Your task to perform on an android device: turn off improve location accuracy Image 0: 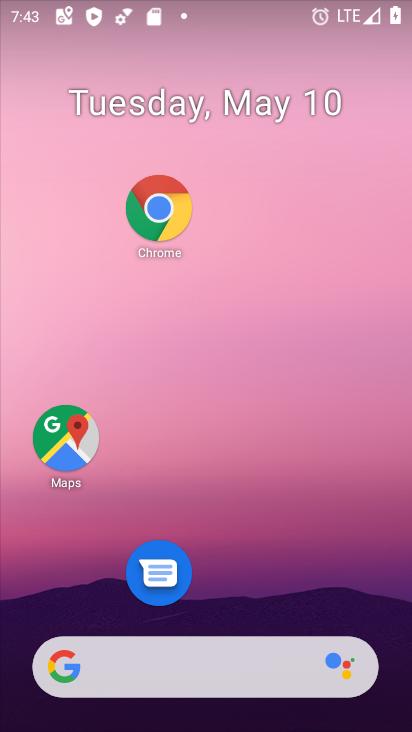
Step 0: drag from (304, 698) to (372, 145)
Your task to perform on an android device: turn off improve location accuracy Image 1: 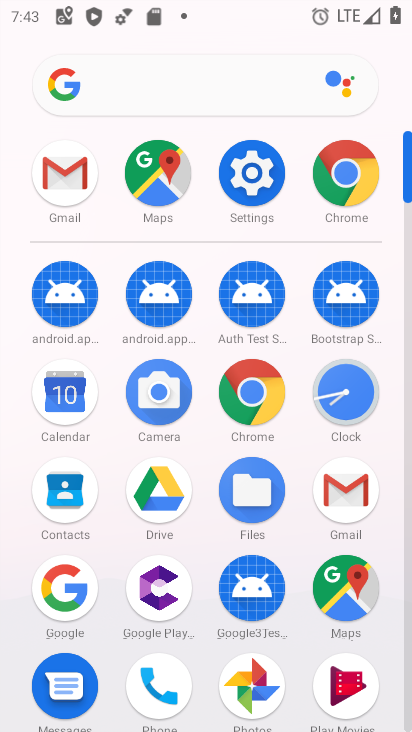
Step 1: click (240, 192)
Your task to perform on an android device: turn off improve location accuracy Image 2: 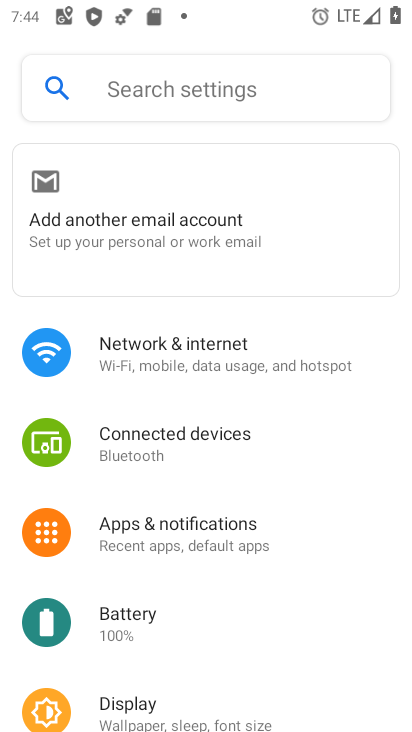
Step 2: click (223, 93)
Your task to perform on an android device: turn off improve location accuracy Image 3: 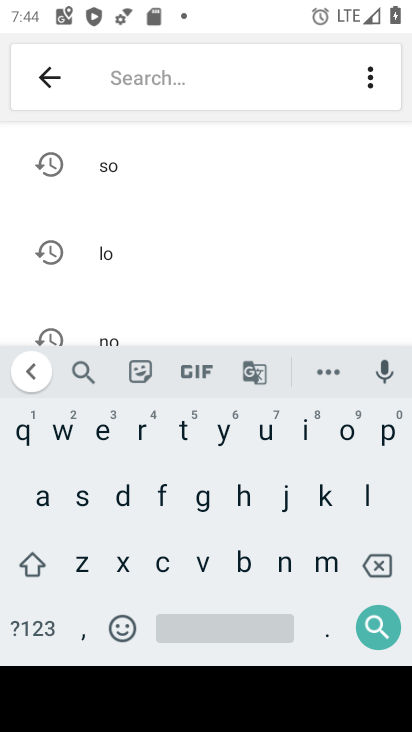
Step 3: click (112, 257)
Your task to perform on an android device: turn off improve location accuracy Image 4: 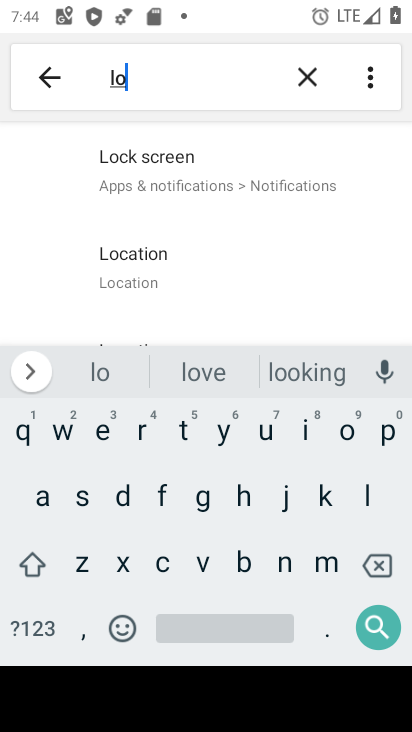
Step 4: click (123, 266)
Your task to perform on an android device: turn off improve location accuracy Image 5: 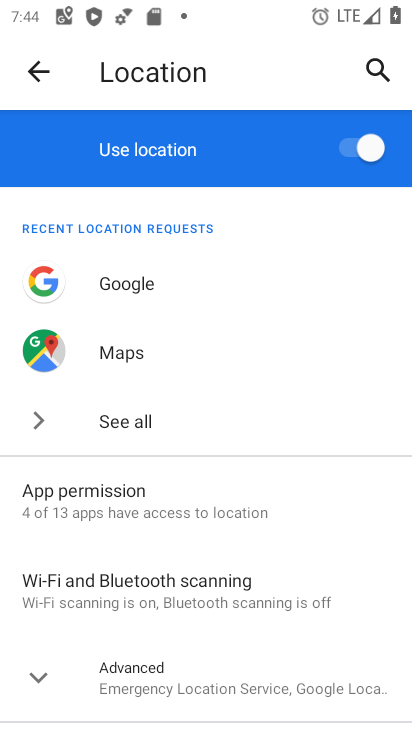
Step 5: click (41, 672)
Your task to perform on an android device: turn off improve location accuracy Image 6: 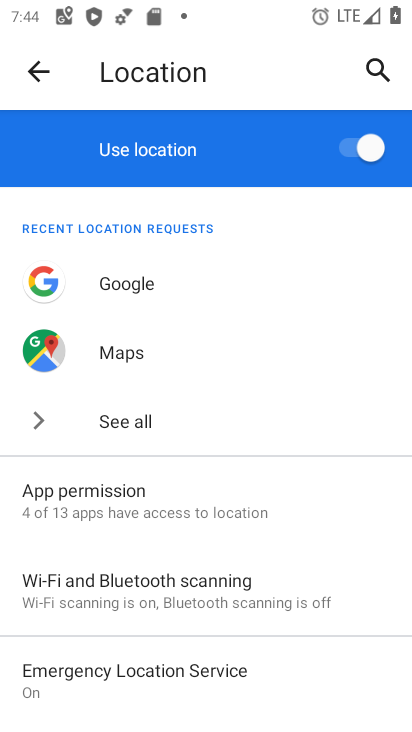
Step 6: drag from (152, 633) to (156, 468)
Your task to perform on an android device: turn off improve location accuracy Image 7: 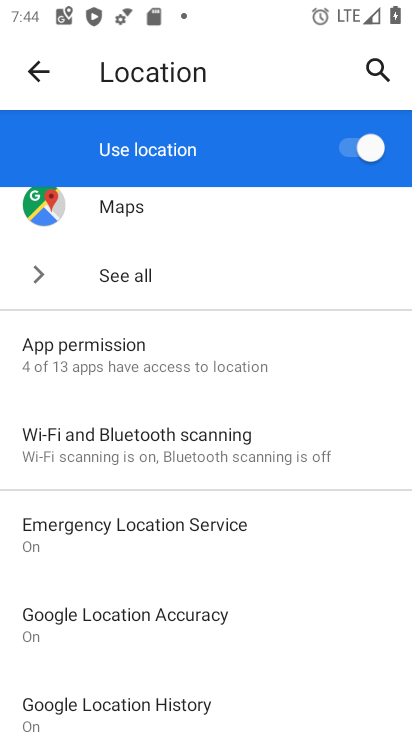
Step 7: click (132, 612)
Your task to perform on an android device: turn off improve location accuracy Image 8: 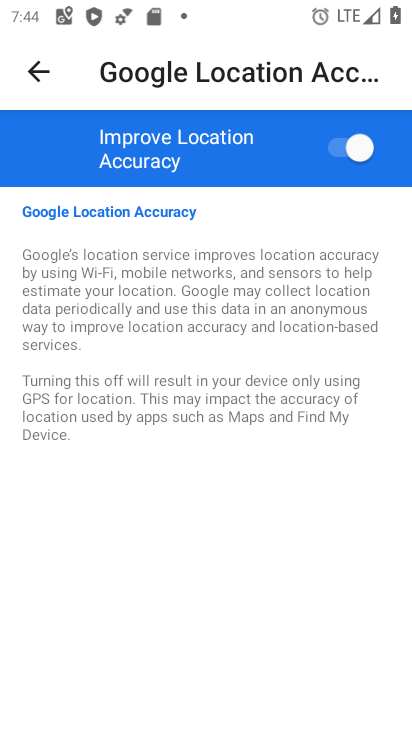
Step 8: click (349, 154)
Your task to perform on an android device: turn off improve location accuracy Image 9: 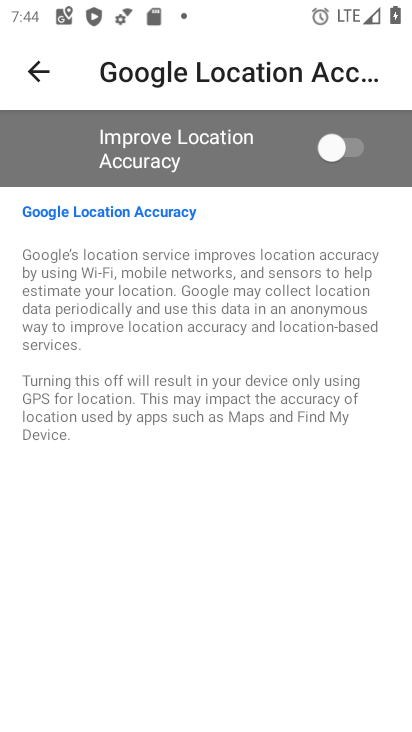
Step 9: task complete